Your task to perform on an android device: turn on the 12-hour format for clock Image 0: 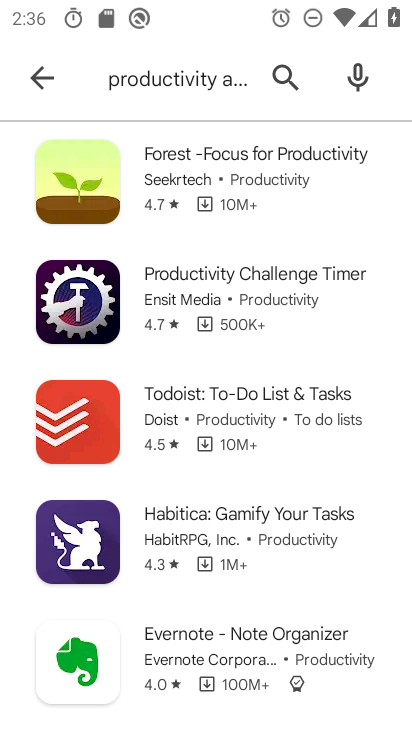
Step 0: press home button
Your task to perform on an android device: turn on the 12-hour format for clock Image 1: 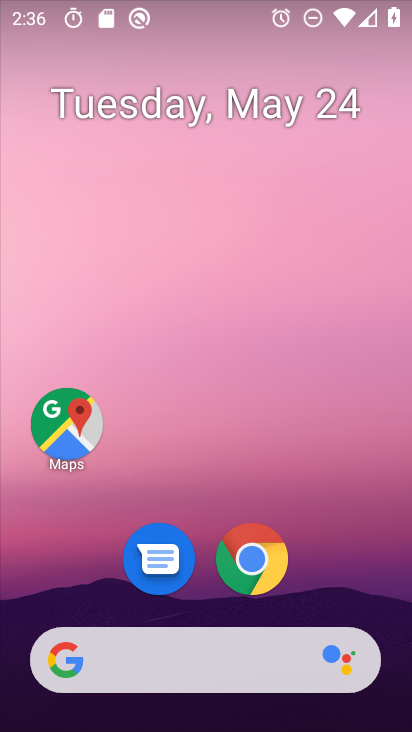
Step 1: drag from (397, 728) to (354, 173)
Your task to perform on an android device: turn on the 12-hour format for clock Image 2: 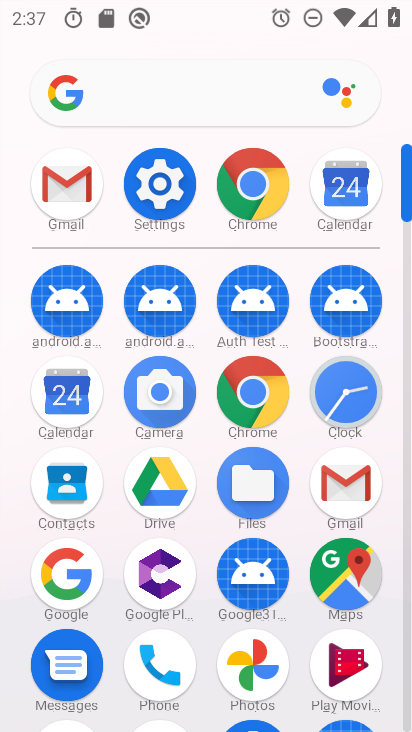
Step 2: click (171, 180)
Your task to perform on an android device: turn on the 12-hour format for clock Image 3: 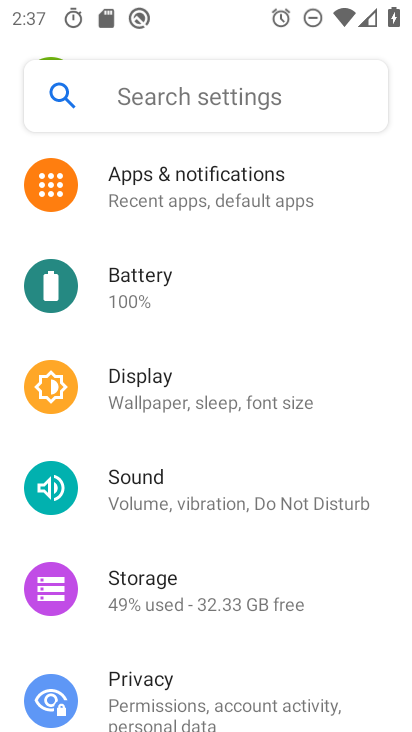
Step 3: press home button
Your task to perform on an android device: turn on the 12-hour format for clock Image 4: 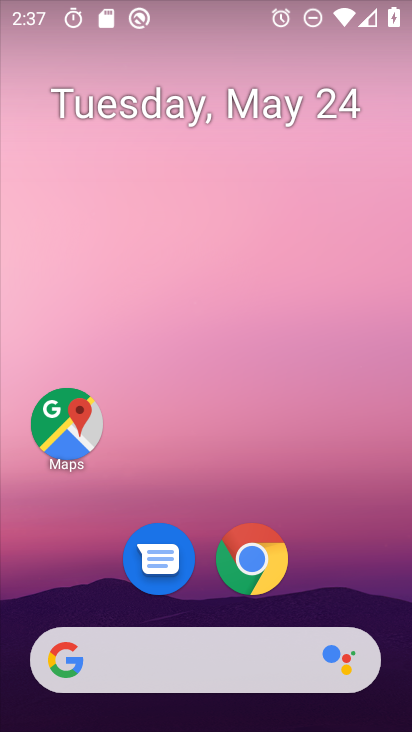
Step 4: drag from (395, 710) to (380, 237)
Your task to perform on an android device: turn on the 12-hour format for clock Image 5: 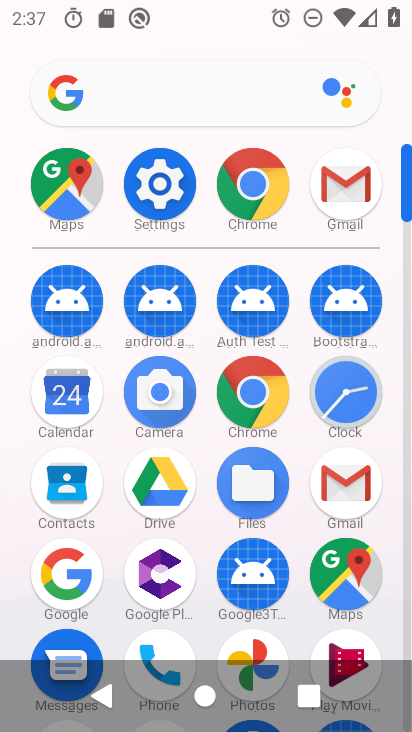
Step 5: click (354, 399)
Your task to perform on an android device: turn on the 12-hour format for clock Image 6: 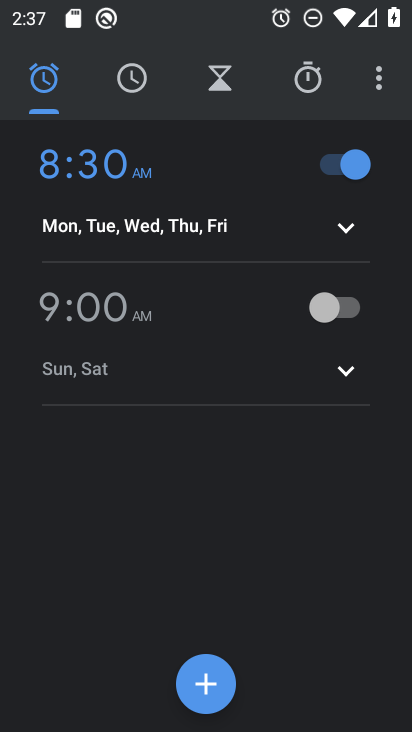
Step 6: click (386, 79)
Your task to perform on an android device: turn on the 12-hour format for clock Image 7: 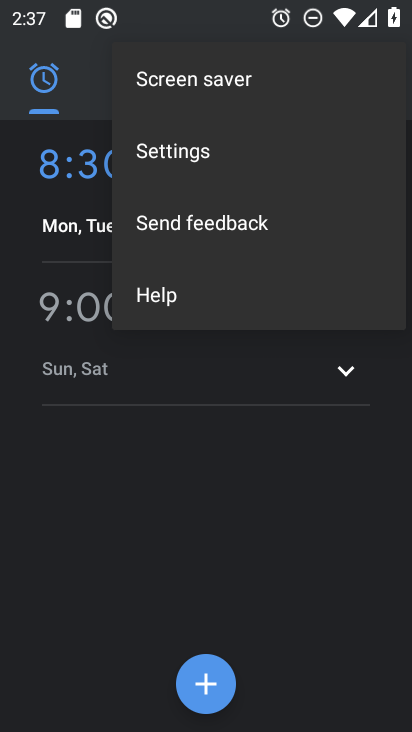
Step 7: click (184, 148)
Your task to perform on an android device: turn on the 12-hour format for clock Image 8: 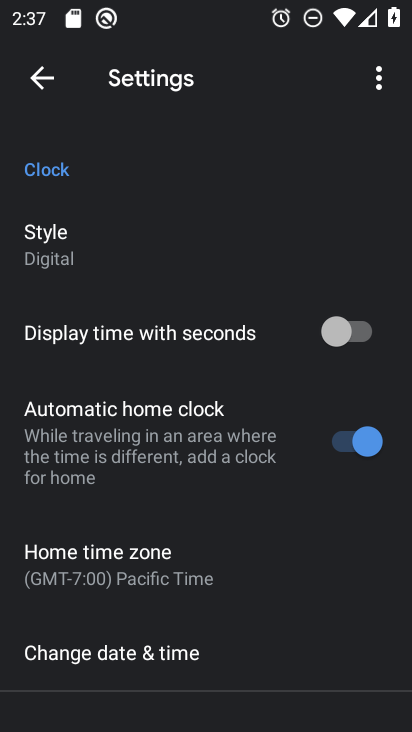
Step 8: click (75, 648)
Your task to perform on an android device: turn on the 12-hour format for clock Image 9: 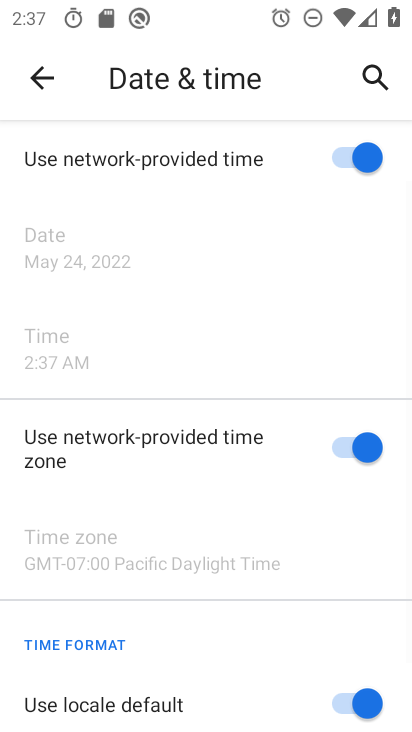
Step 9: drag from (258, 678) to (250, 363)
Your task to perform on an android device: turn on the 12-hour format for clock Image 10: 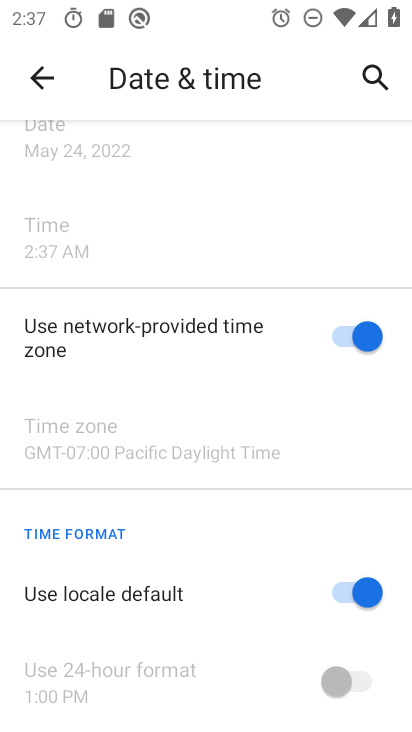
Step 10: click (344, 599)
Your task to perform on an android device: turn on the 12-hour format for clock Image 11: 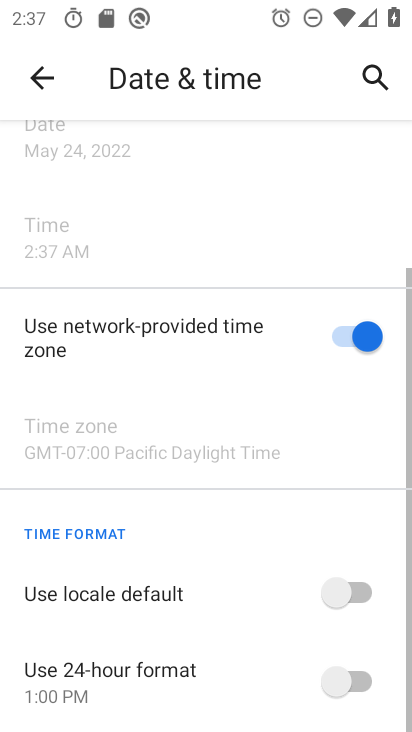
Step 11: click (358, 597)
Your task to perform on an android device: turn on the 12-hour format for clock Image 12: 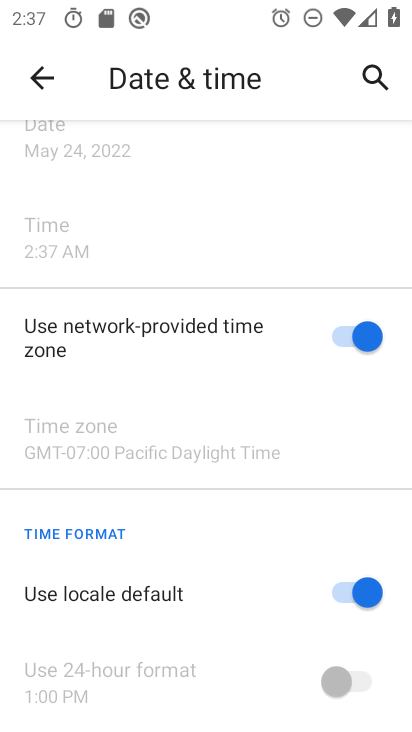
Step 12: task complete